Your task to perform on an android device: check out phone information Image 0: 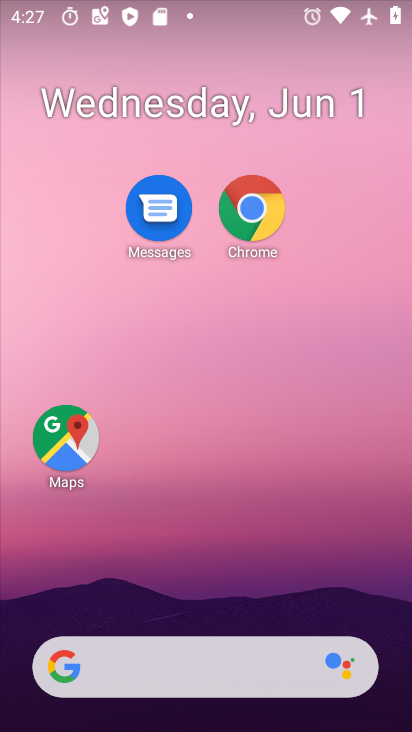
Step 0: drag from (206, 610) to (210, 163)
Your task to perform on an android device: check out phone information Image 1: 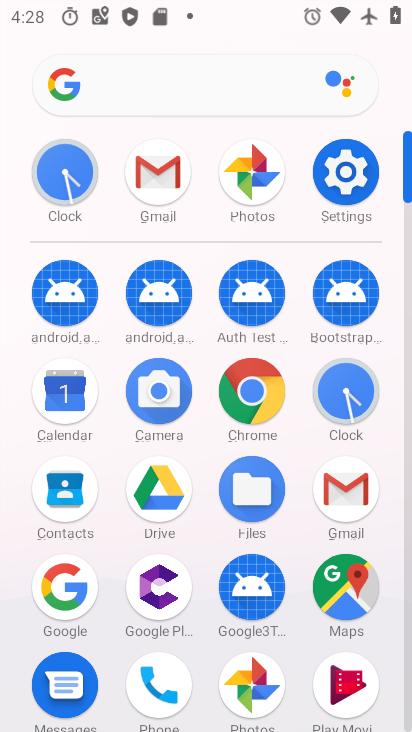
Step 1: click (331, 168)
Your task to perform on an android device: check out phone information Image 2: 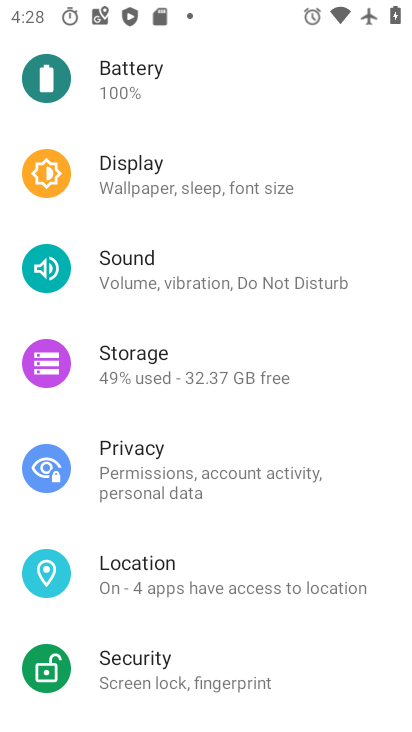
Step 2: drag from (227, 644) to (221, 434)
Your task to perform on an android device: check out phone information Image 3: 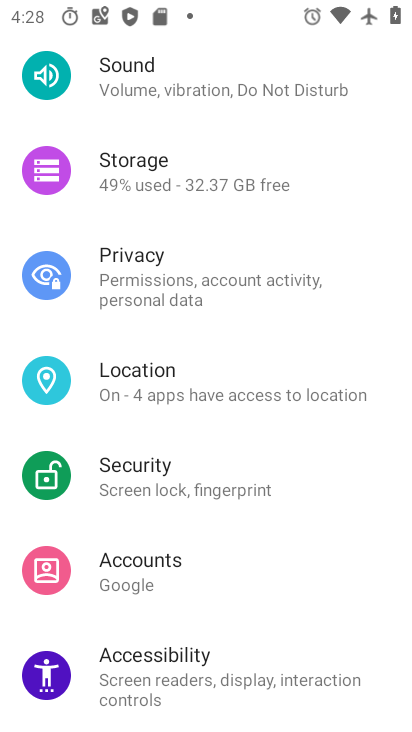
Step 3: drag from (216, 663) to (283, 340)
Your task to perform on an android device: check out phone information Image 4: 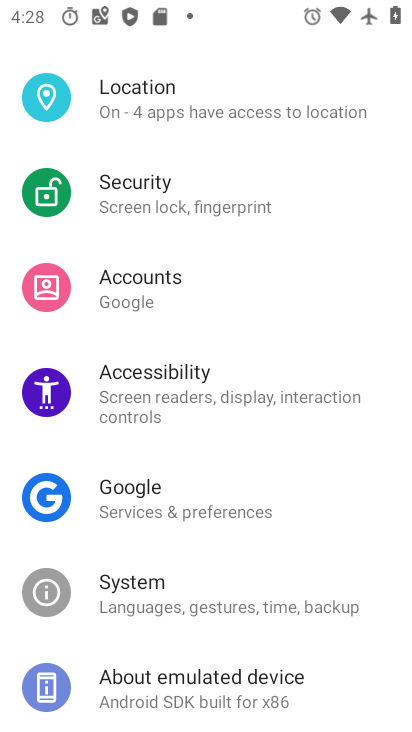
Step 4: drag from (204, 636) to (222, 369)
Your task to perform on an android device: check out phone information Image 5: 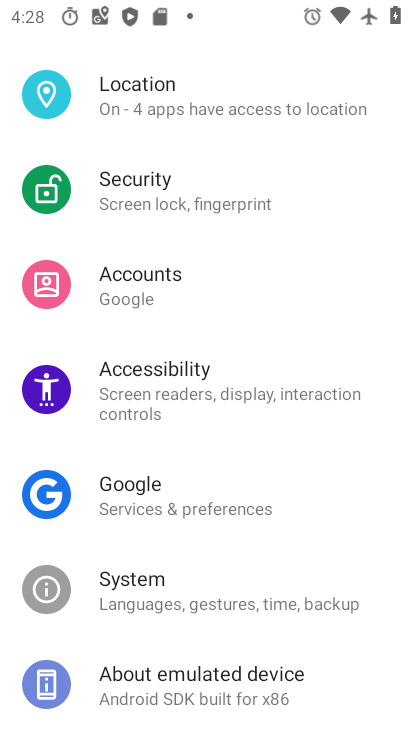
Step 5: click (150, 669)
Your task to perform on an android device: check out phone information Image 6: 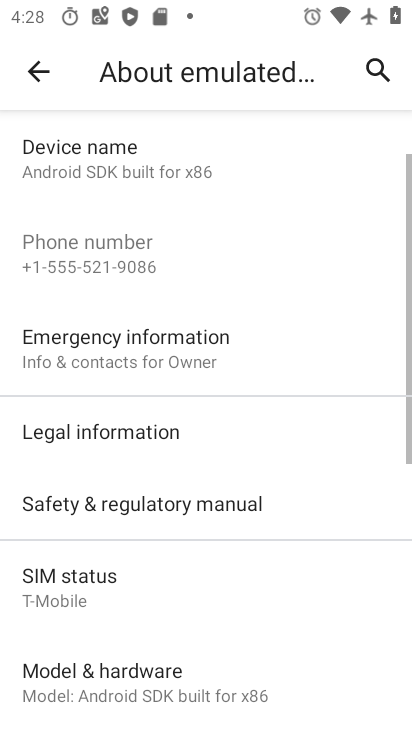
Step 6: task complete